Your task to perform on an android device: Open sound settings Image 0: 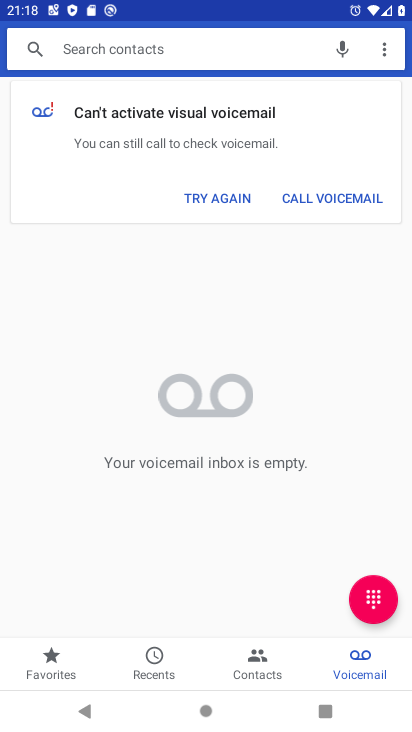
Step 0: press home button
Your task to perform on an android device: Open sound settings Image 1: 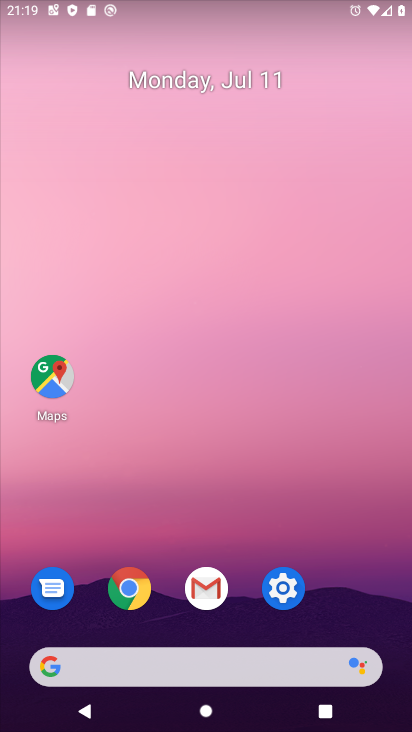
Step 1: click (265, 605)
Your task to perform on an android device: Open sound settings Image 2: 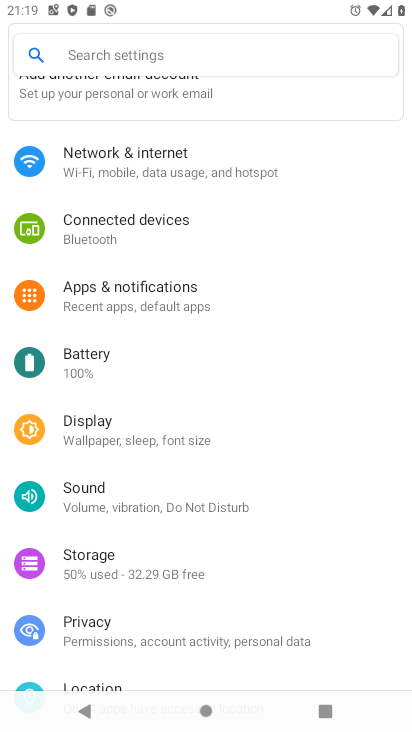
Step 2: click (144, 499)
Your task to perform on an android device: Open sound settings Image 3: 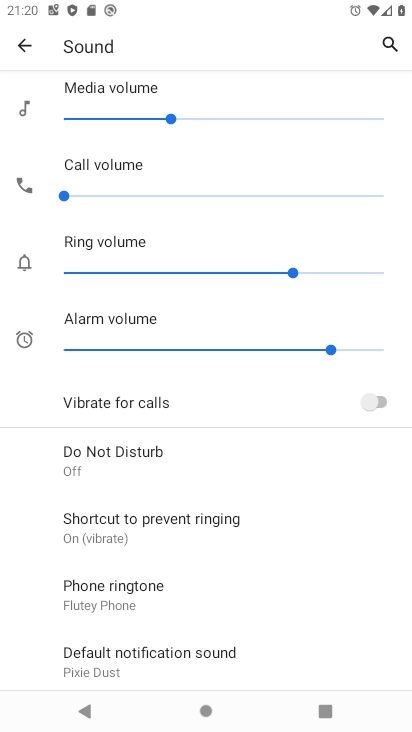
Step 3: task complete